Your task to perform on an android device: turn on javascript in the chrome app Image 0: 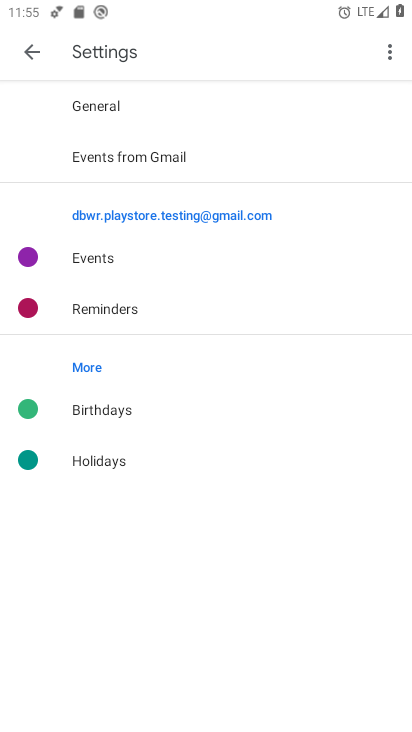
Step 0: press home button
Your task to perform on an android device: turn on javascript in the chrome app Image 1: 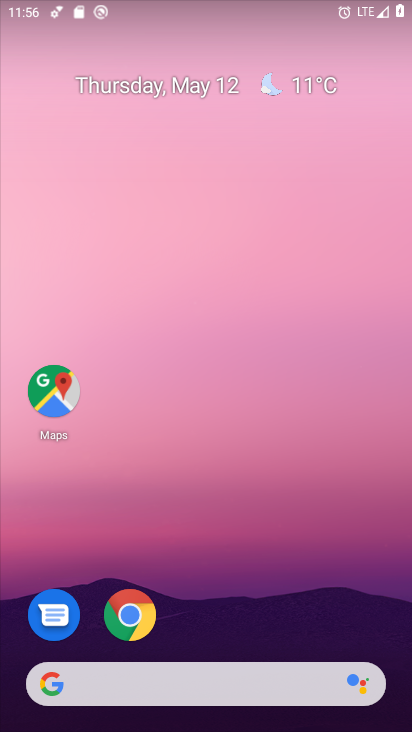
Step 1: click (146, 605)
Your task to perform on an android device: turn on javascript in the chrome app Image 2: 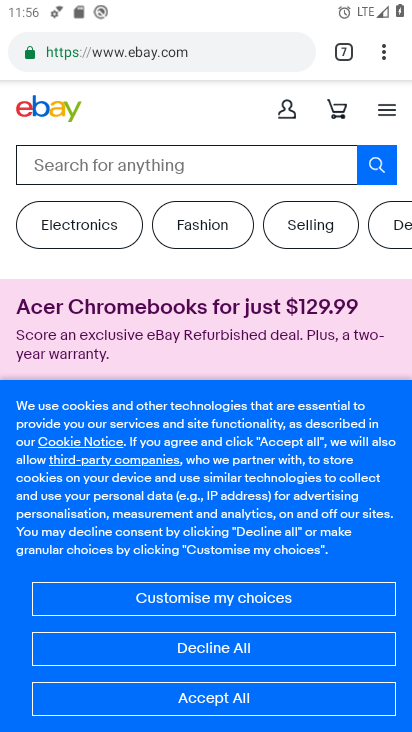
Step 2: click (382, 49)
Your task to perform on an android device: turn on javascript in the chrome app Image 3: 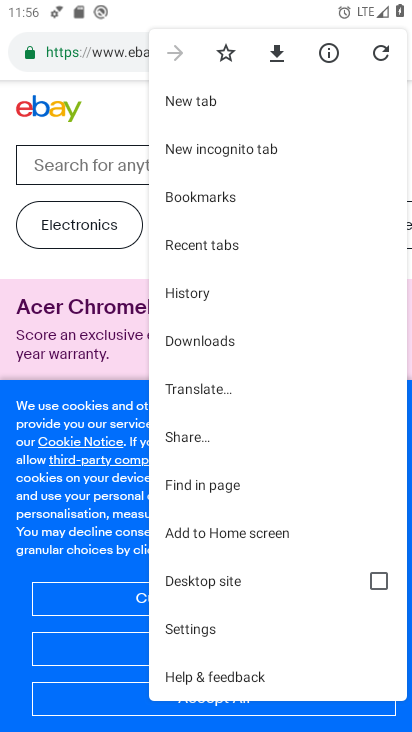
Step 3: click (245, 622)
Your task to perform on an android device: turn on javascript in the chrome app Image 4: 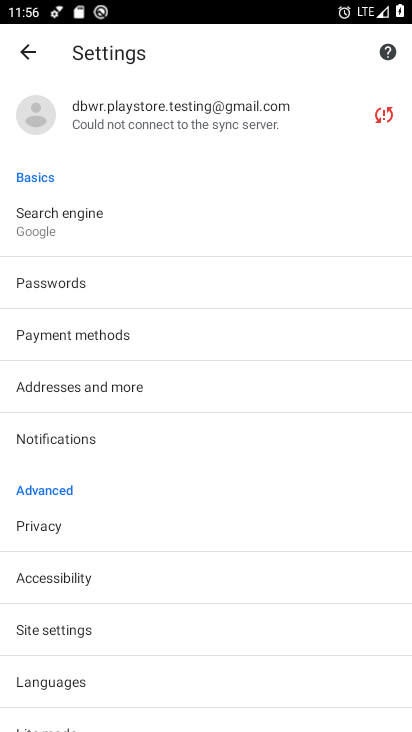
Step 4: click (245, 622)
Your task to perform on an android device: turn on javascript in the chrome app Image 5: 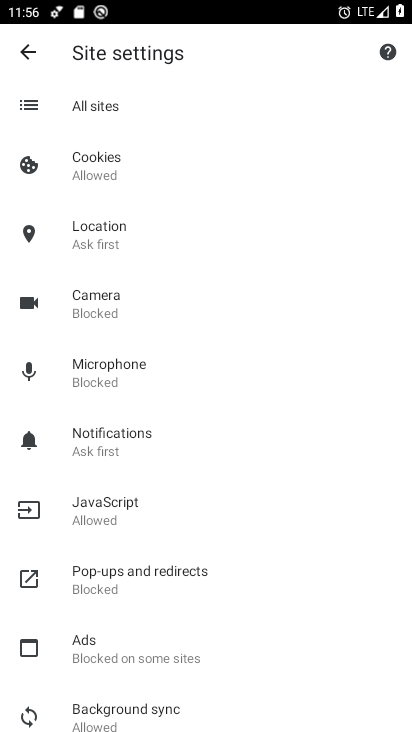
Step 5: click (205, 502)
Your task to perform on an android device: turn on javascript in the chrome app Image 6: 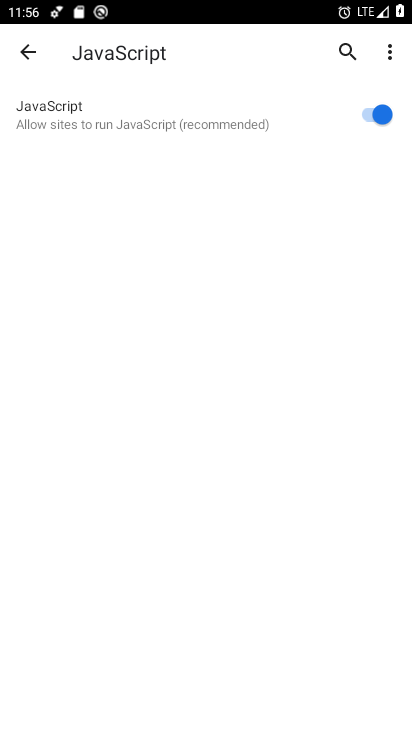
Step 6: task complete